Your task to perform on an android device: Go to accessibility settings Image 0: 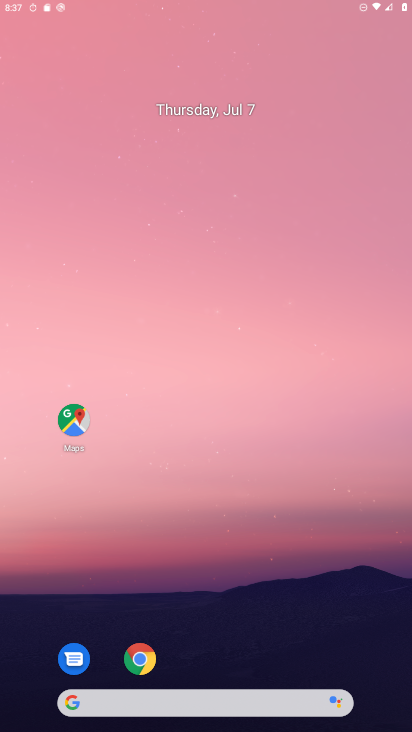
Step 0: drag from (260, 43) to (166, 28)
Your task to perform on an android device: Go to accessibility settings Image 1: 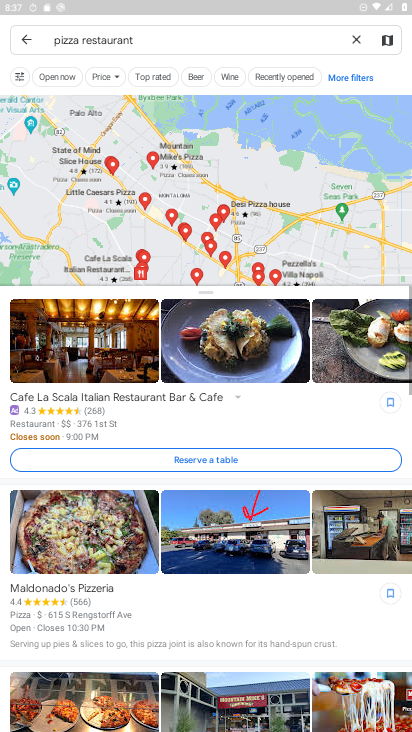
Step 1: press home button
Your task to perform on an android device: Go to accessibility settings Image 2: 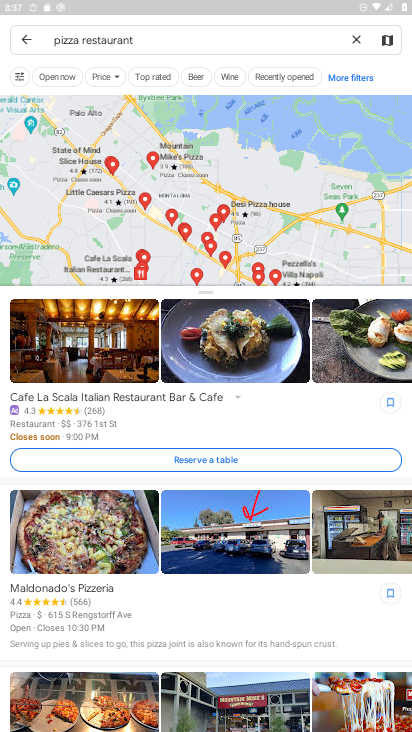
Step 2: drag from (387, 704) to (289, 6)
Your task to perform on an android device: Go to accessibility settings Image 3: 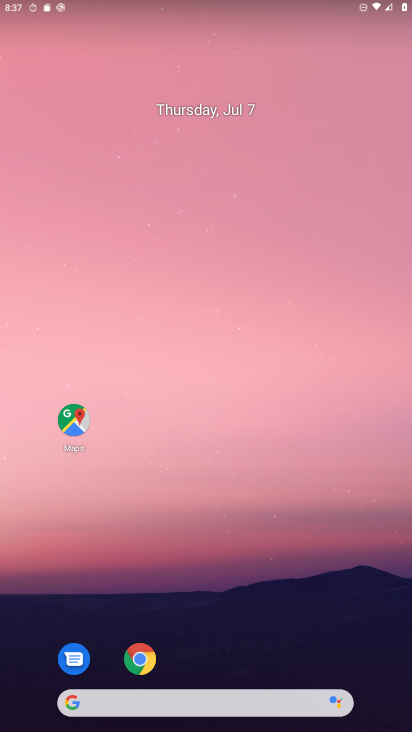
Step 3: drag from (387, 622) to (216, 9)
Your task to perform on an android device: Go to accessibility settings Image 4: 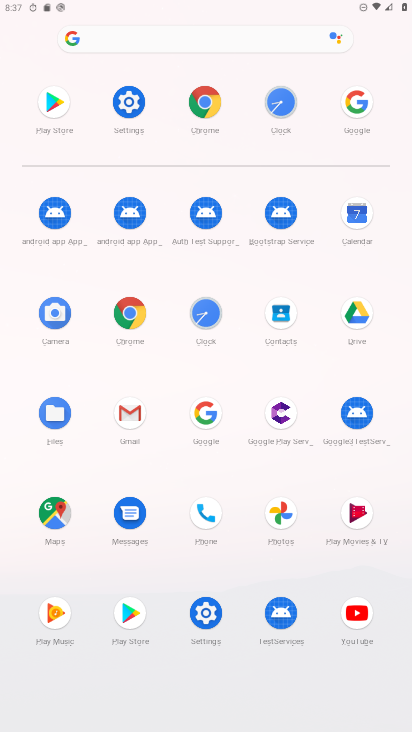
Step 4: click (209, 627)
Your task to perform on an android device: Go to accessibility settings Image 5: 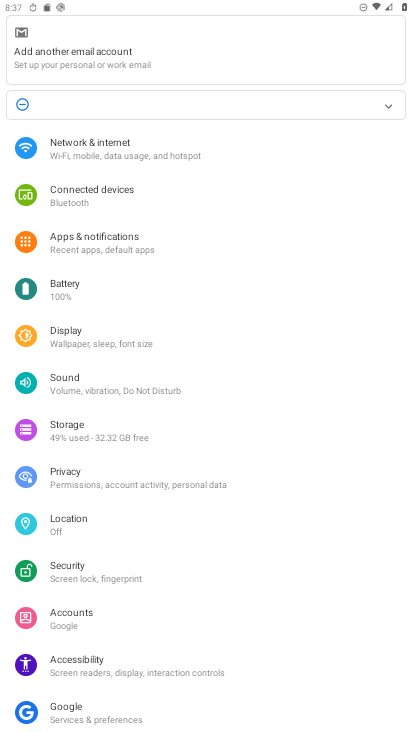
Step 5: click (83, 674)
Your task to perform on an android device: Go to accessibility settings Image 6: 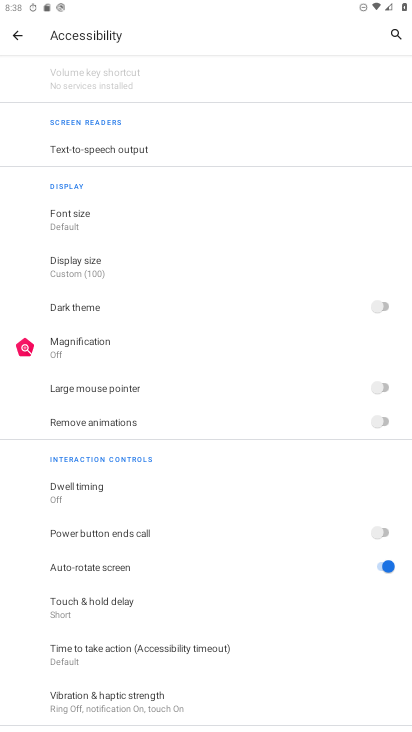
Step 6: task complete